Your task to perform on an android device: add a contact Image 0: 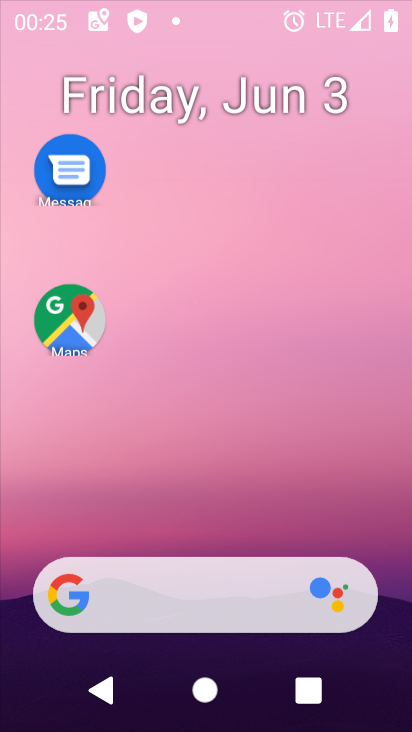
Step 0: drag from (366, 661) to (305, 182)
Your task to perform on an android device: add a contact Image 1: 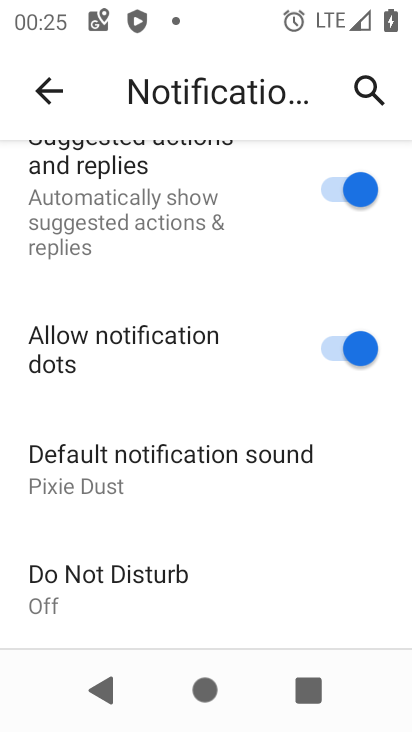
Step 1: press home button
Your task to perform on an android device: add a contact Image 2: 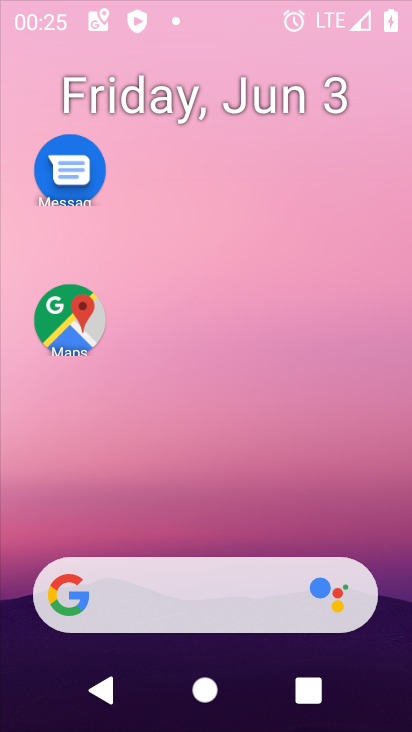
Step 2: drag from (382, 612) to (351, 132)
Your task to perform on an android device: add a contact Image 3: 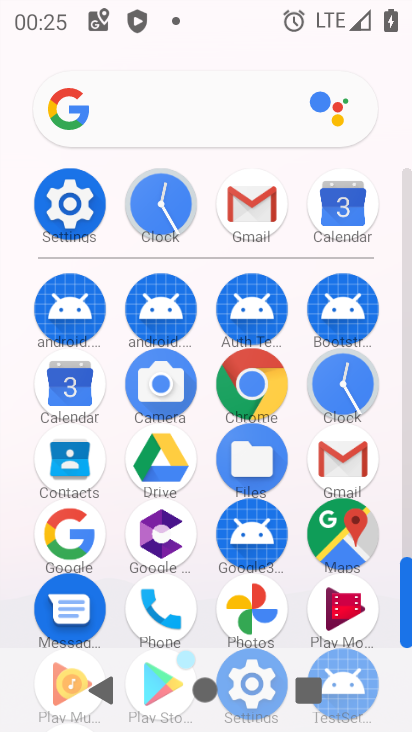
Step 3: drag from (402, 600) to (402, 690)
Your task to perform on an android device: add a contact Image 4: 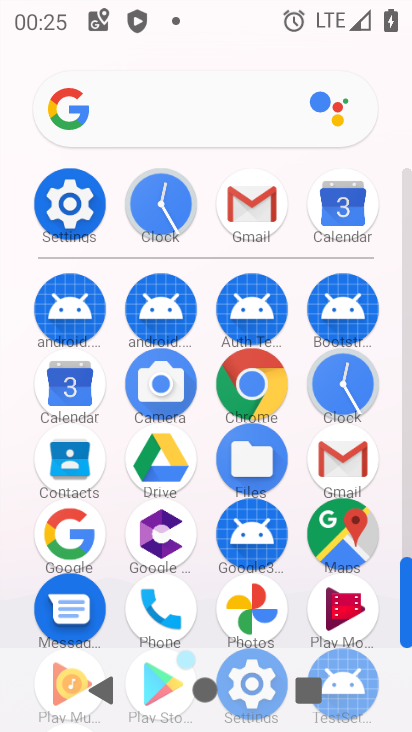
Step 4: drag from (299, 658) to (287, 372)
Your task to perform on an android device: add a contact Image 5: 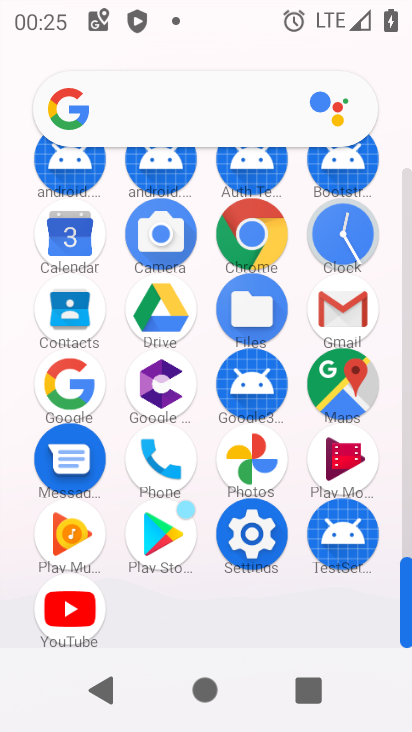
Step 5: click (63, 316)
Your task to perform on an android device: add a contact Image 6: 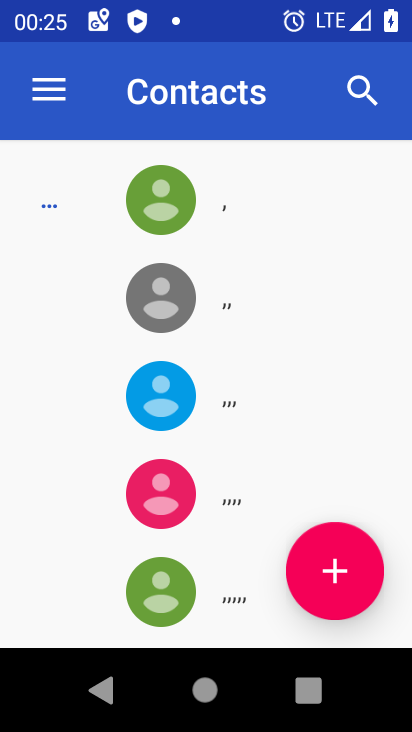
Step 6: click (275, 551)
Your task to perform on an android device: add a contact Image 7: 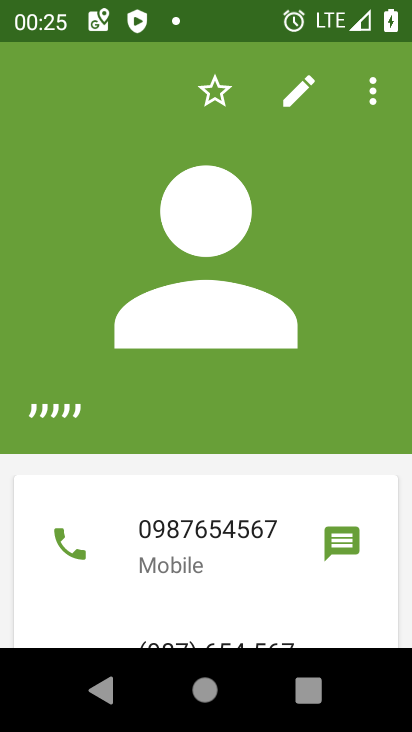
Step 7: press back button
Your task to perform on an android device: add a contact Image 8: 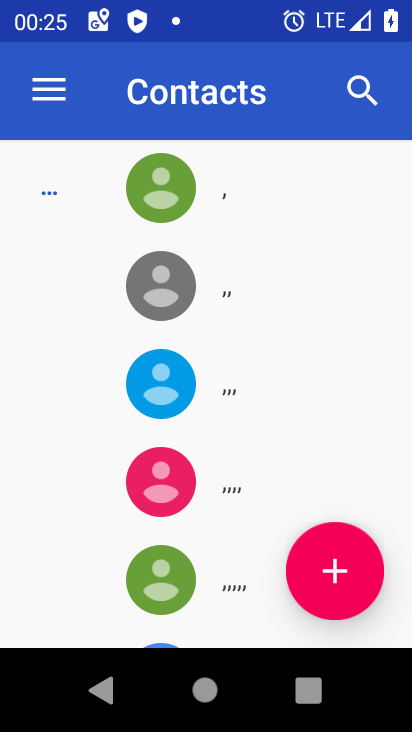
Step 8: click (339, 589)
Your task to perform on an android device: add a contact Image 9: 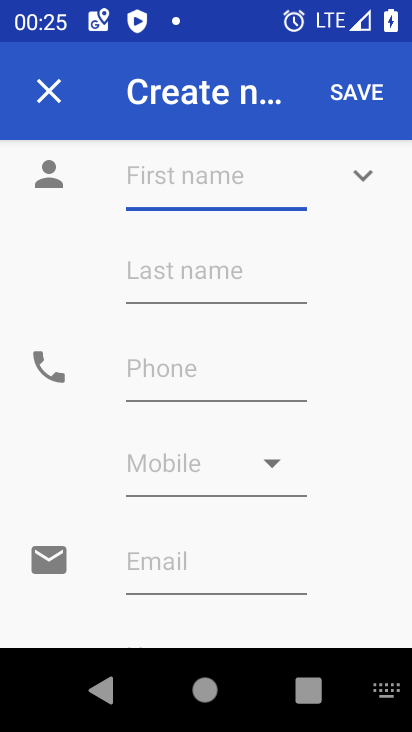
Step 9: type "zxcvbnm,.'[][=-098765rfcvbn"
Your task to perform on an android device: add a contact Image 10: 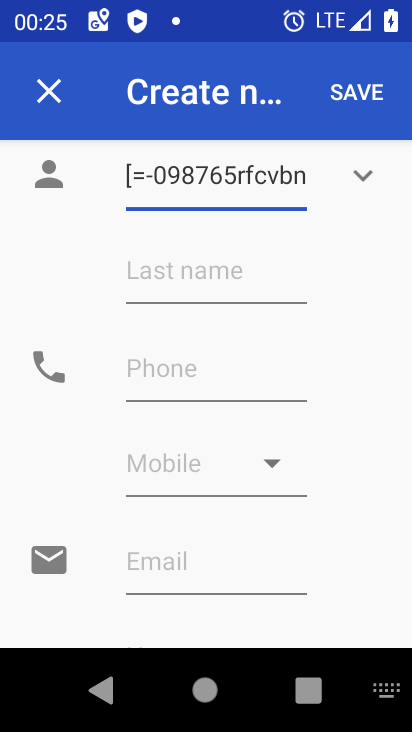
Step 10: click (233, 372)
Your task to perform on an android device: add a contact Image 11: 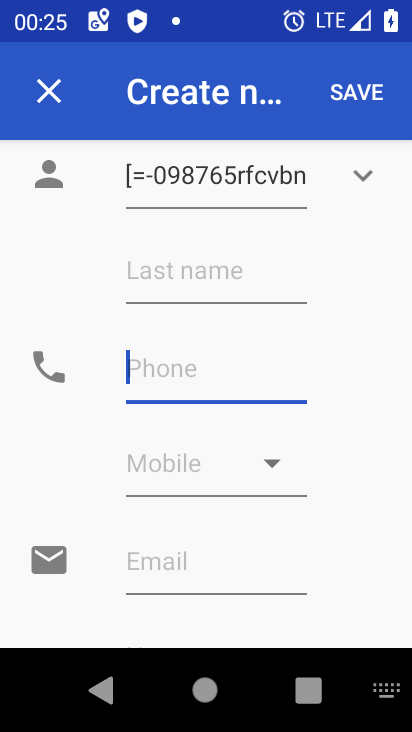
Step 11: click (233, 372)
Your task to perform on an android device: add a contact Image 12: 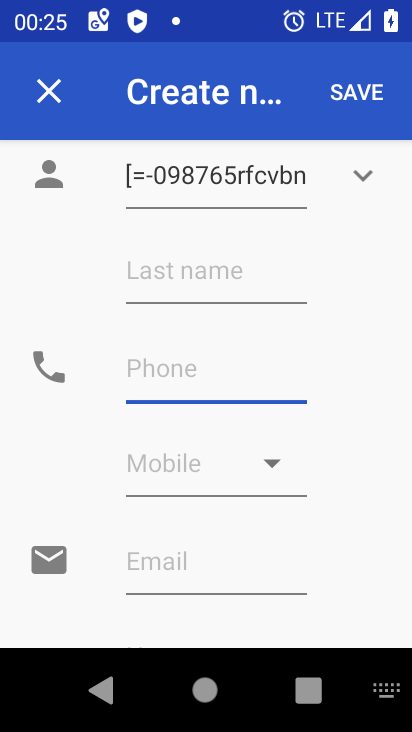
Step 12: click (233, 372)
Your task to perform on an android device: add a contact Image 13: 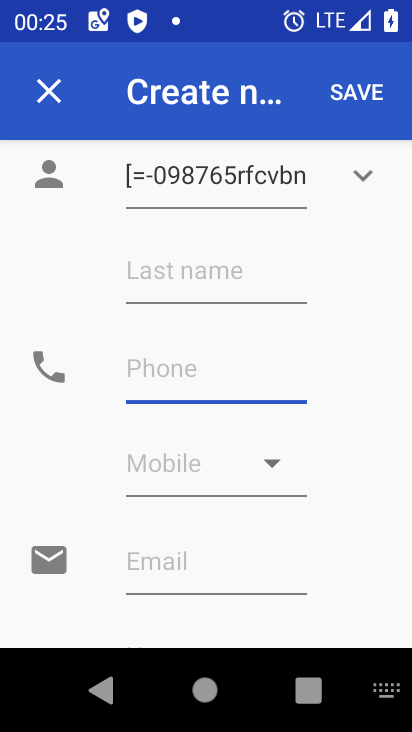
Step 13: click (233, 372)
Your task to perform on an android device: add a contact Image 14: 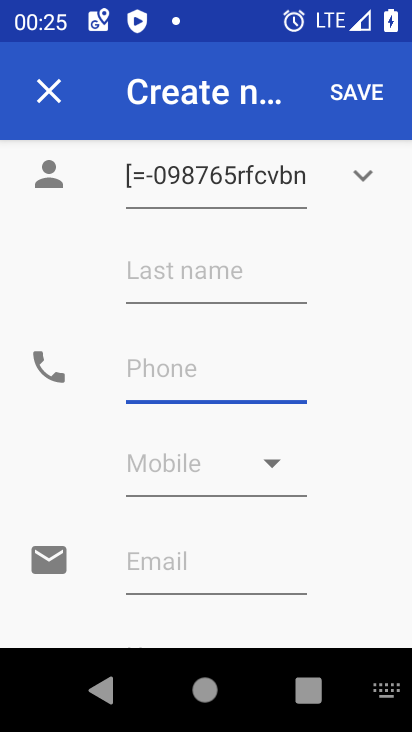
Step 14: click (198, 385)
Your task to perform on an android device: add a contact Image 15: 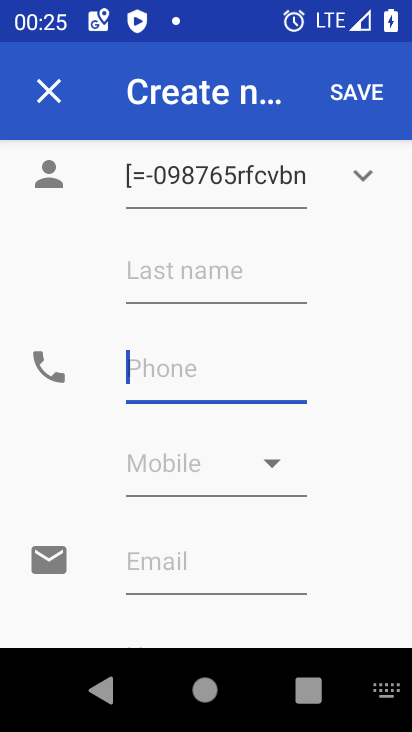
Step 15: type "0988765444666776"
Your task to perform on an android device: add a contact Image 16: 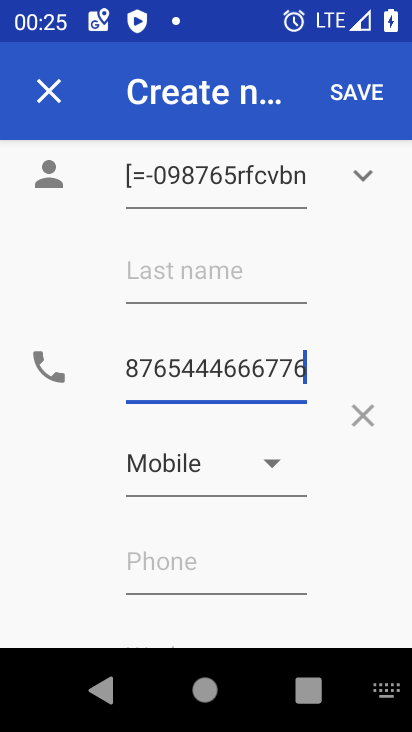
Step 16: click (366, 78)
Your task to perform on an android device: add a contact Image 17: 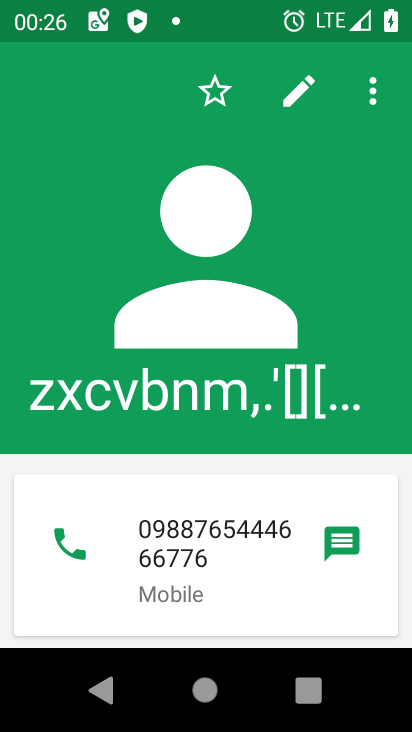
Step 17: task complete